Your task to perform on an android device: change the clock style Image 0: 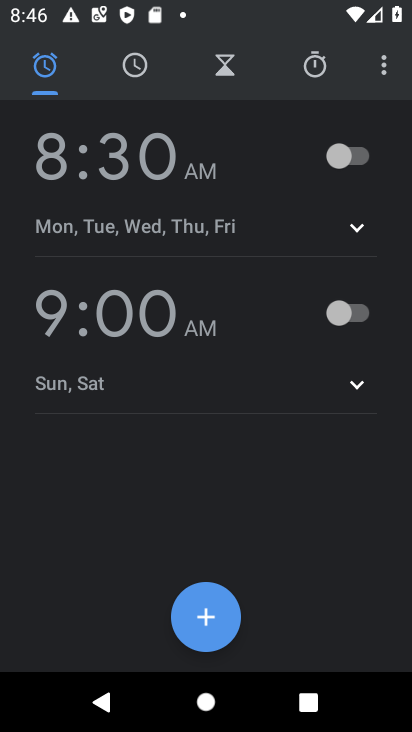
Step 0: click (387, 66)
Your task to perform on an android device: change the clock style Image 1: 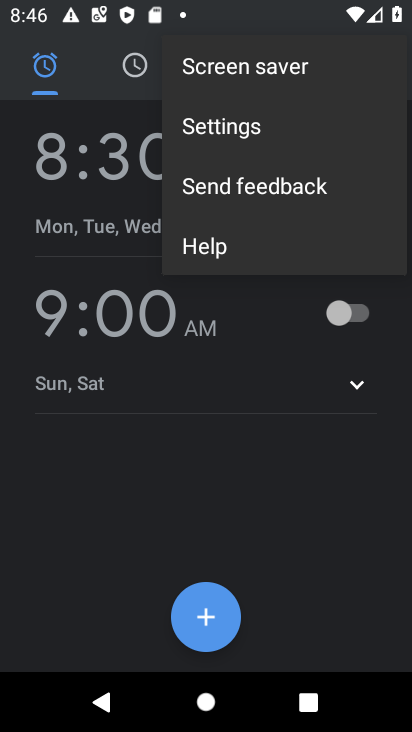
Step 1: click (300, 119)
Your task to perform on an android device: change the clock style Image 2: 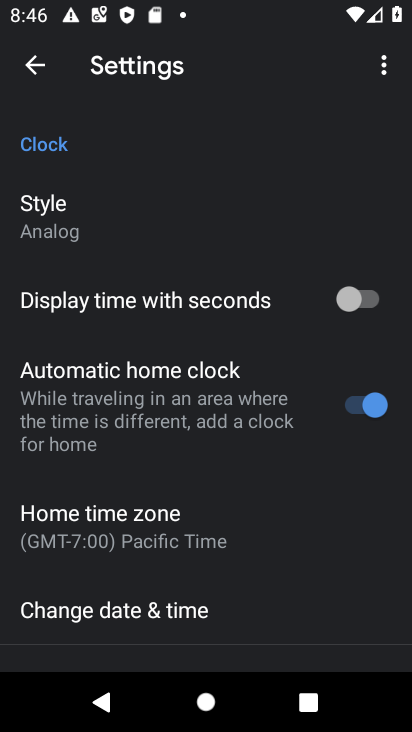
Step 2: click (67, 202)
Your task to perform on an android device: change the clock style Image 3: 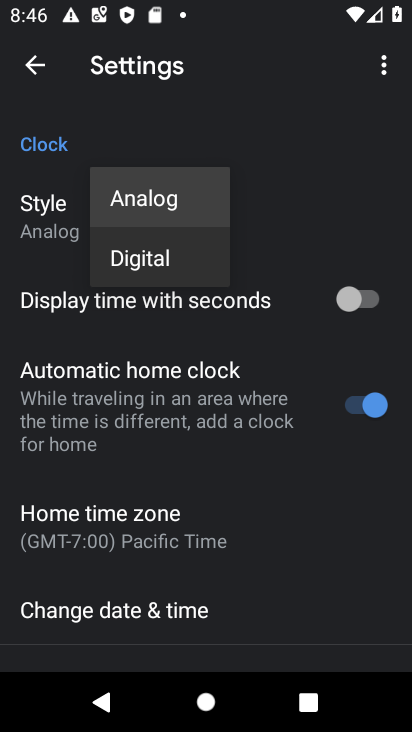
Step 3: click (106, 251)
Your task to perform on an android device: change the clock style Image 4: 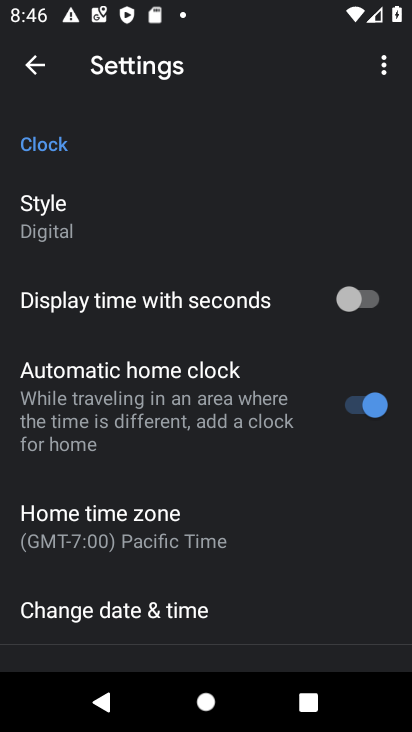
Step 4: task complete